Your task to perform on an android device: delete location history Image 0: 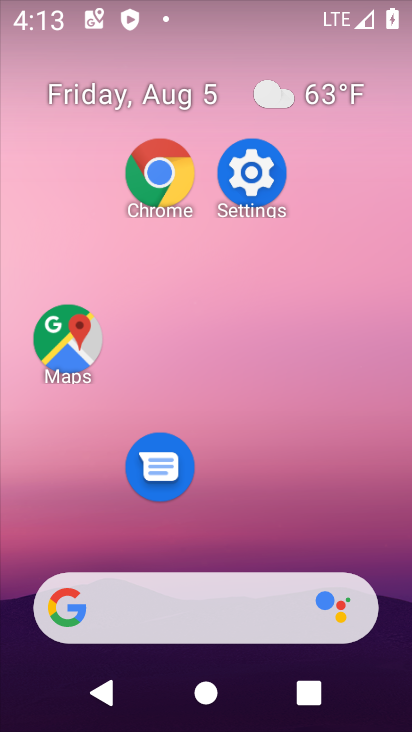
Step 0: drag from (319, 503) to (318, 65)
Your task to perform on an android device: delete location history Image 1: 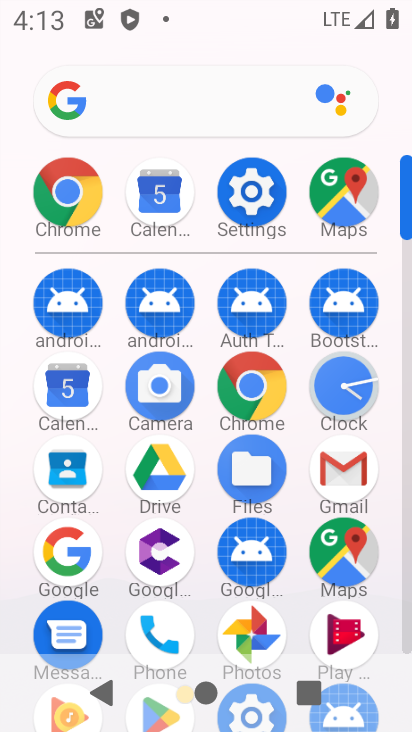
Step 1: click (255, 191)
Your task to perform on an android device: delete location history Image 2: 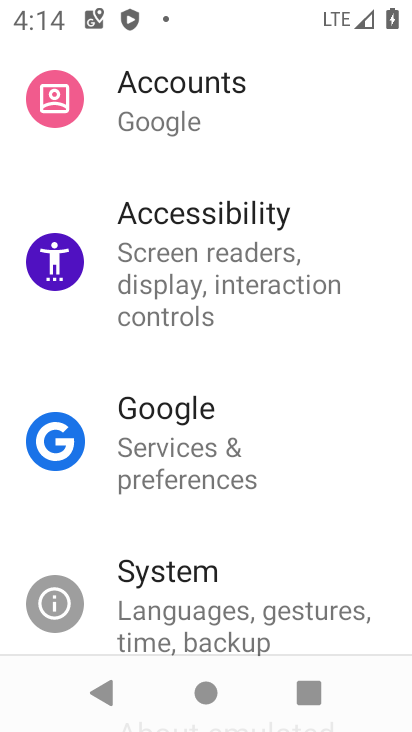
Step 2: drag from (241, 513) to (301, 87)
Your task to perform on an android device: delete location history Image 3: 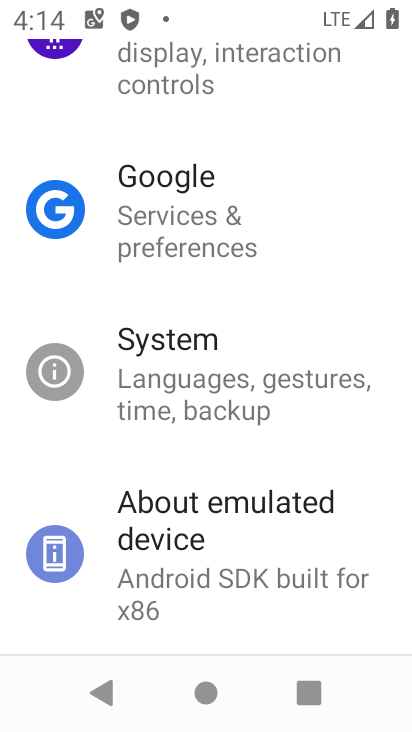
Step 3: drag from (242, 360) to (205, 616)
Your task to perform on an android device: delete location history Image 4: 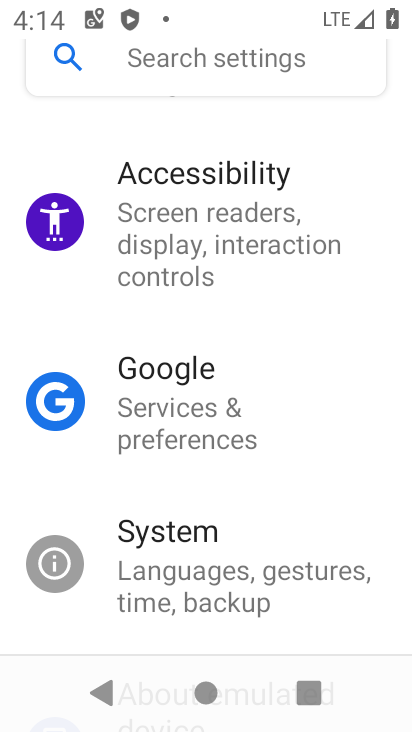
Step 4: drag from (261, 274) to (180, 596)
Your task to perform on an android device: delete location history Image 5: 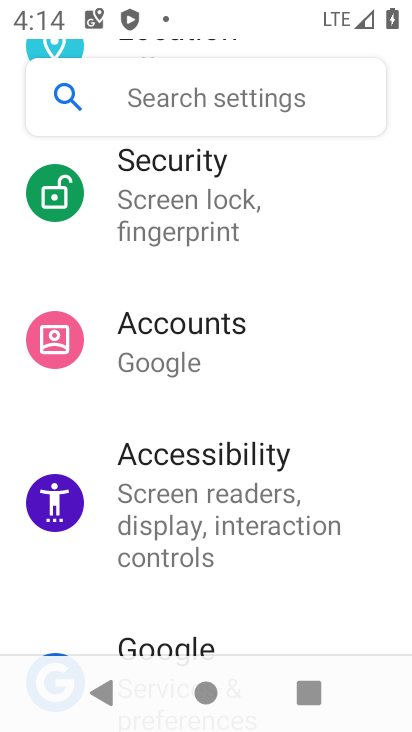
Step 5: drag from (206, 508) to (266, 252)
Your task to perform on an android device: delete location history Image 6: 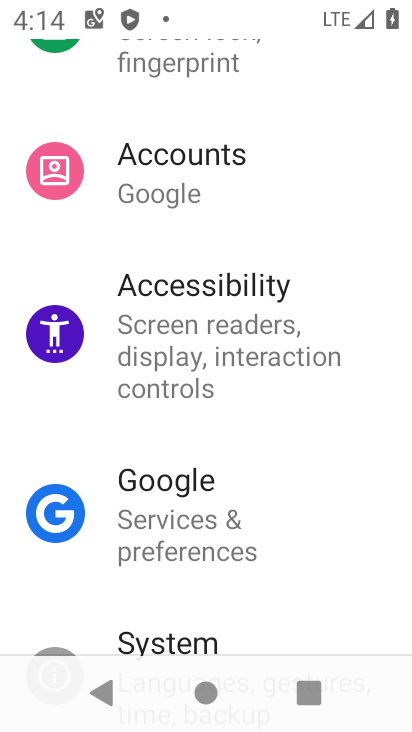
Step 6: drag from (150, 517) to (210, 292)
Your task to perform on an android device: delete location history Image 7: 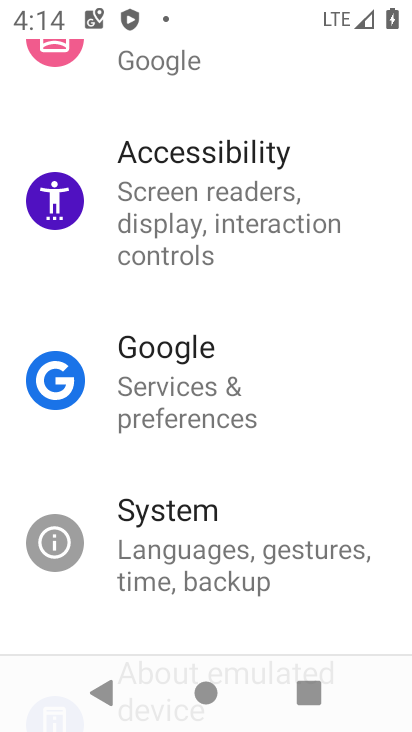
Step 7: drag from (251, 555) to (302, 593)
Your task to perform on an android device: delete location history Image 8: 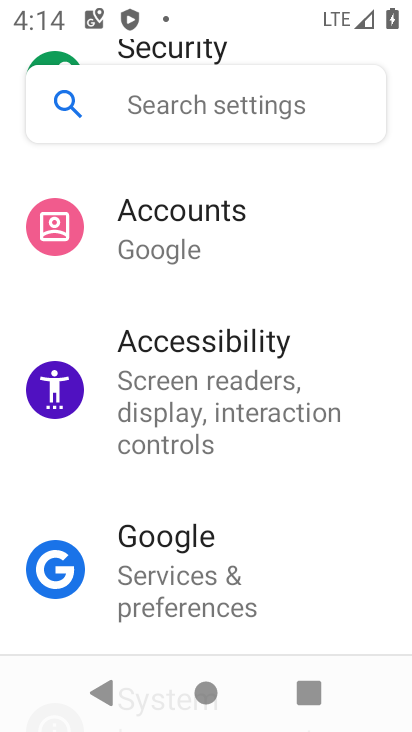
Step 8: drag from (356, 191) to (311, 591)
Your task to perform on an android device: delete location history Image 9: 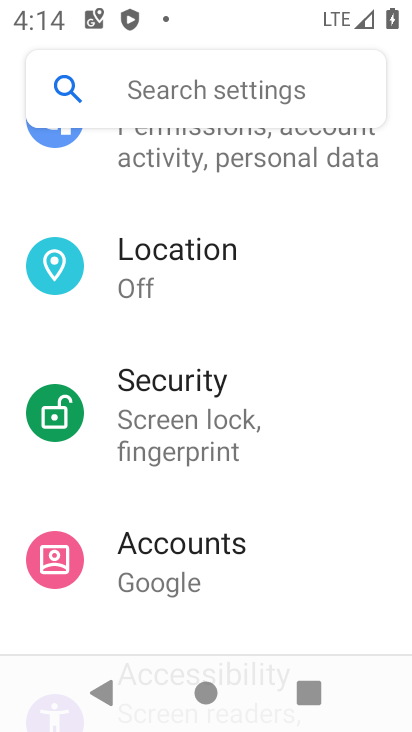
Step 9: click (175, 245)
Your task to perform on an android device: delete location history Image 10: 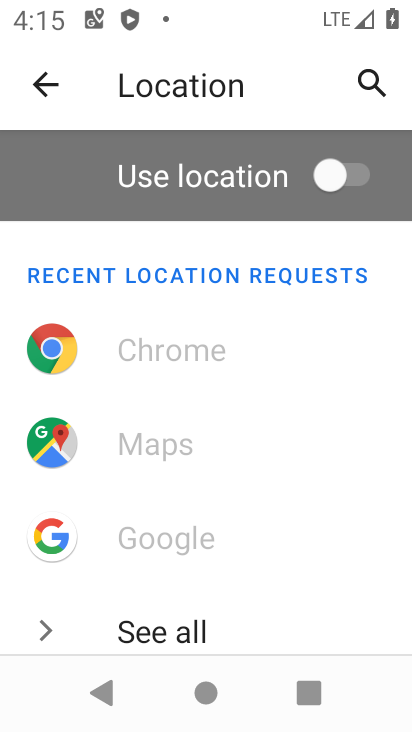
Step 10: task complete